Your task to perform on an android device: delete the emails in spam in the gmail app Image 0: 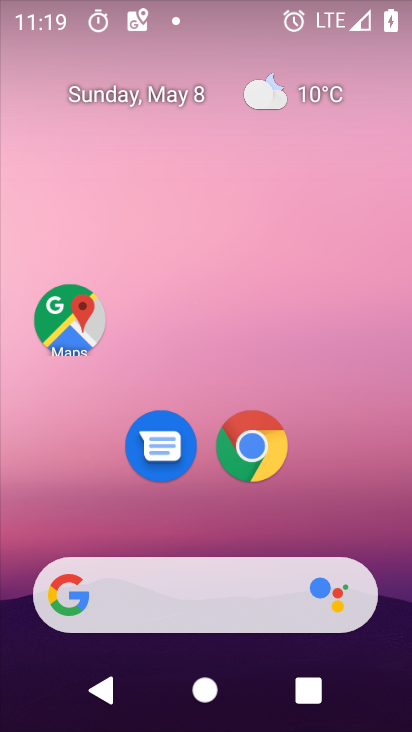
Step 0: drag from (373, 542) to (364, 44)
Your task to perform on an android device: delete the emails in spam in the gmail app Image 1: 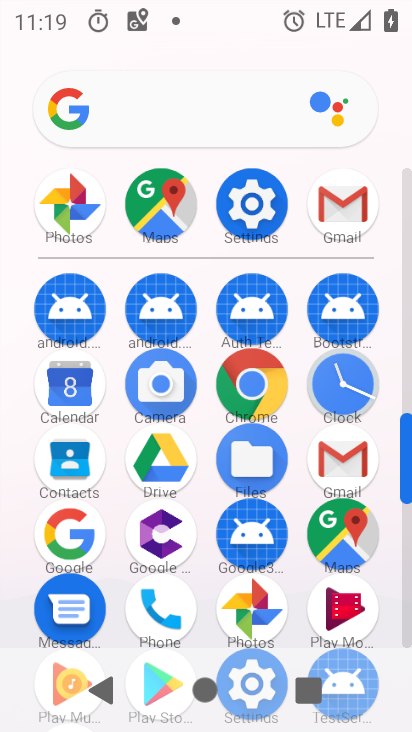
Step 1: click (347, 202)
Your task to perform on an android device: delete the emails in spam in the gmail app Image 2: 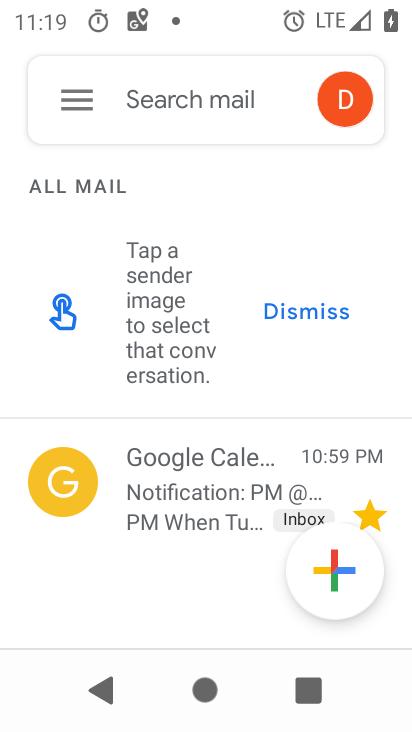
Step 2: click (63, 94)
Your task to perform on an android device: delete the emails in spam in the gmail app Image 3: 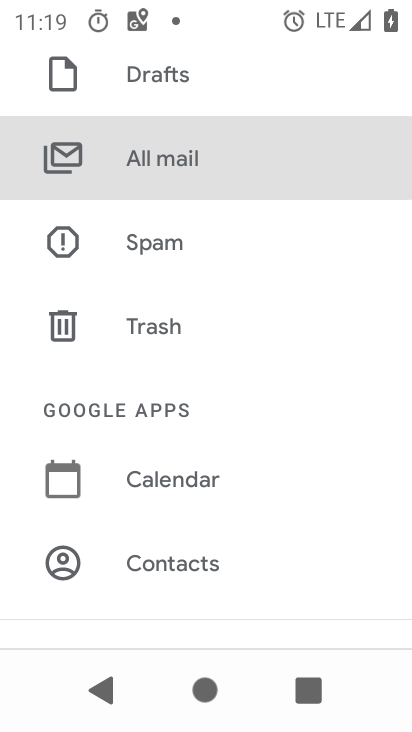
Step 3: click (92, 261)
Your task to perform on an android device: delete the emails in spam in the gmail app Image 4: 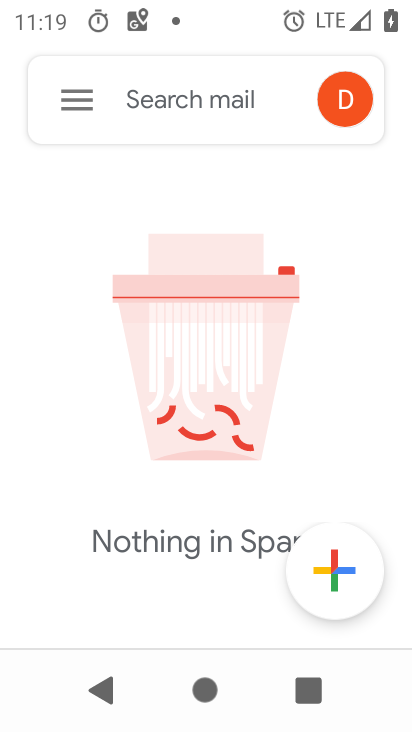
Step 4: task complete